Your task to perform on an android device: See recent photos Image 0: 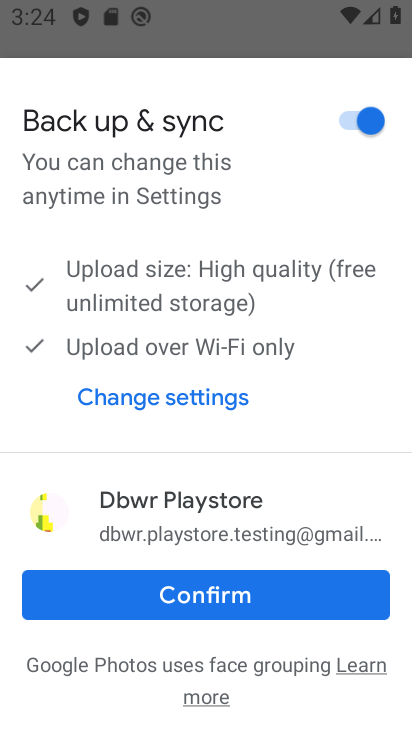
Step 0: press home button
Your task to perform on an android device: See recent photos Image 1: 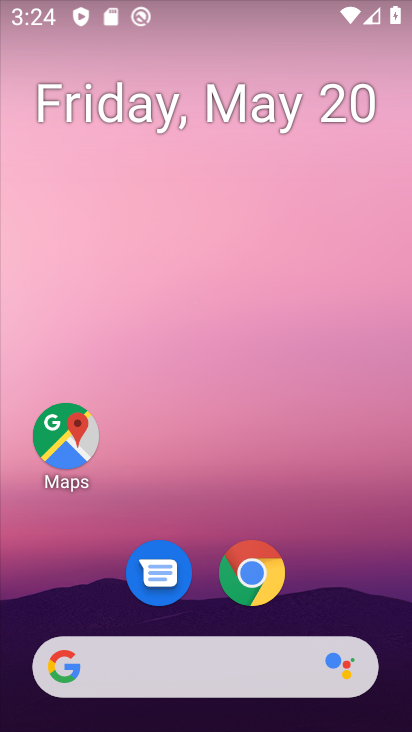
Step 1: drag from (392, 612) to (319, 146)
Your task to perform on an android device: See recent photos Image 2: 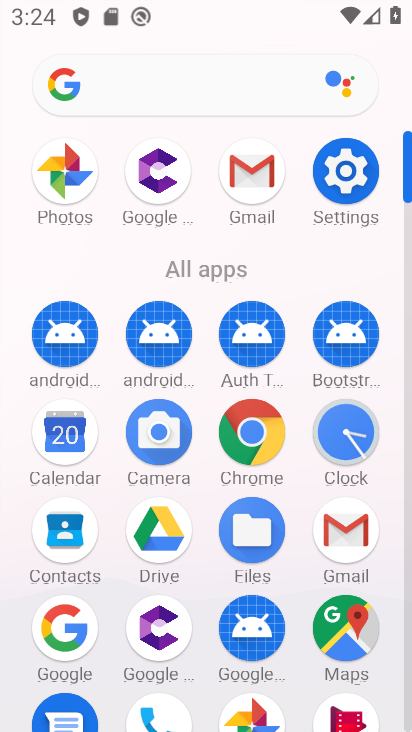
Step 2: click (408, 719)
Your task to perform on an android device: See recent photos Image 3: 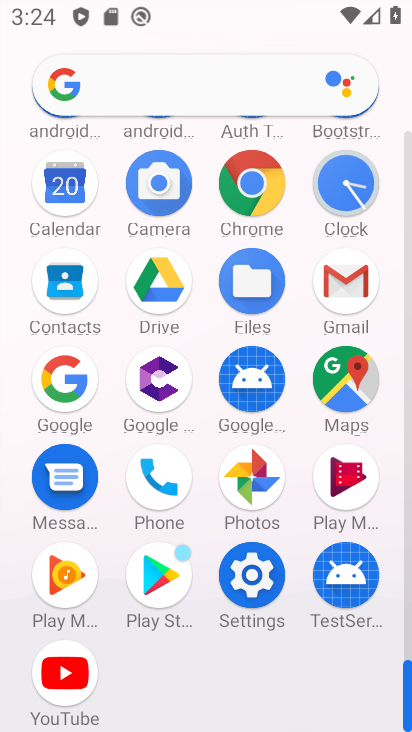
Step 3: click (252, 477)
Your task to perform on an android device: See recent photos Image 4: 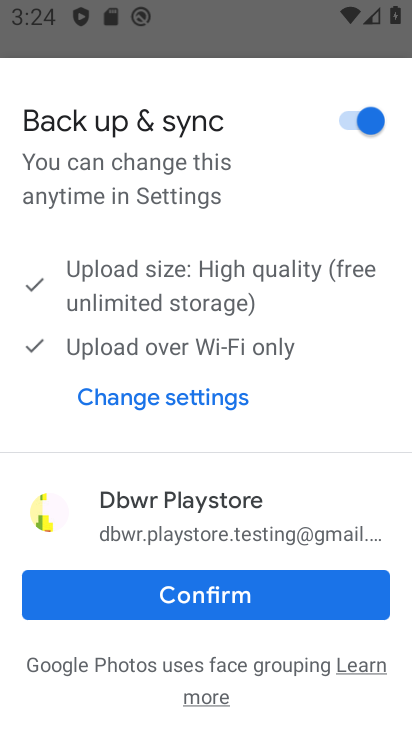
Step 4: click (200, 585)
Your task to perform on an android device: See recent photos Image 5: 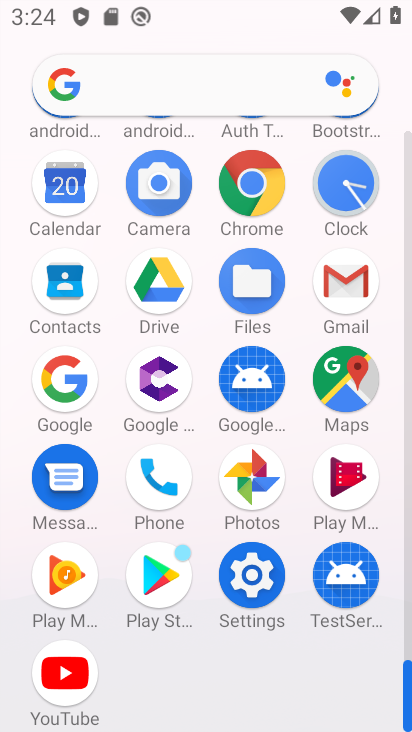
Step 5: click (253, 479)
Your task to perform on an android device: See recent photos Image 6: 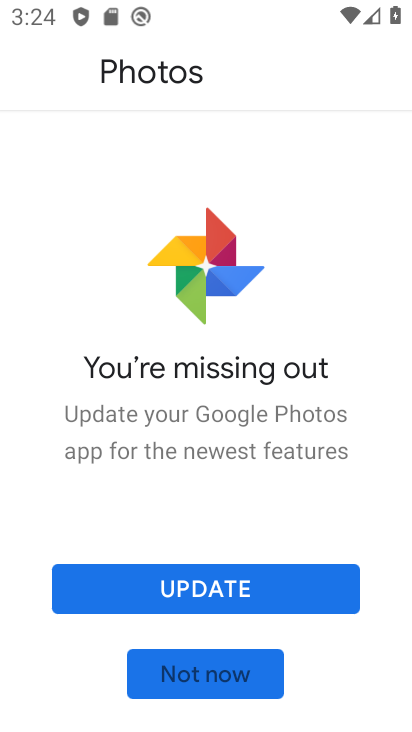
Step 6: click (202, 588)
Your task to perform on an android device: See recent photos Image 7: 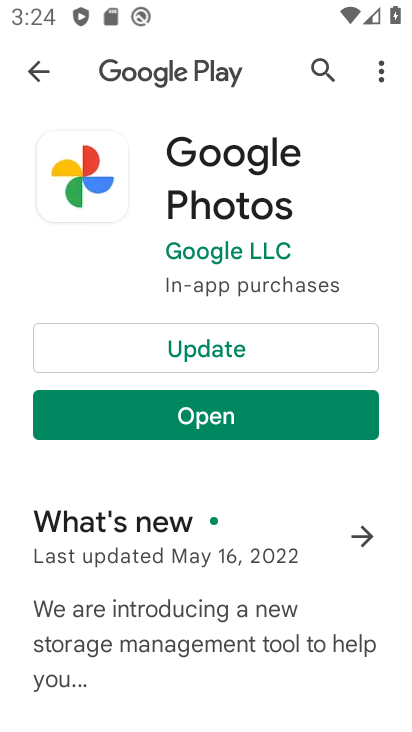
Step 7: click (208, 345)
Your task to perform on an android device: See recent photos Image 8: 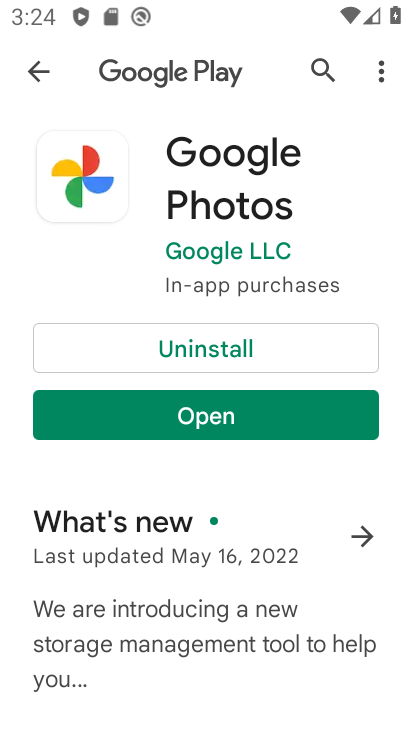
Step 8: click (213, 422)
Your task to perform on an android device: See recent photos Image 9: 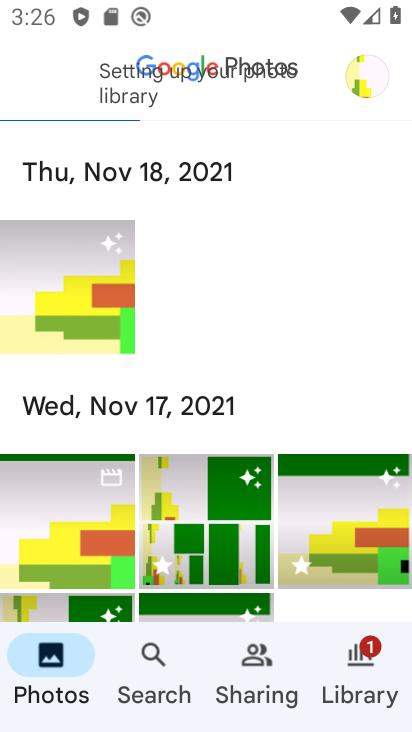
Step 9: task complete